Your task to perform on an android device: Open the stopwatch Image 0: 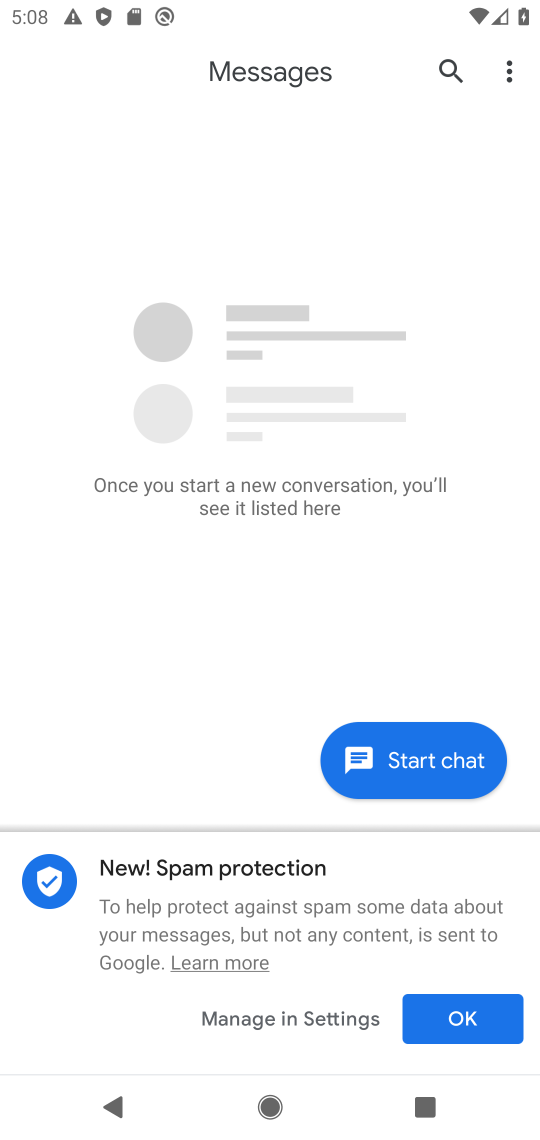
Step 0: press back button
Your task to perform on an android device: Open the stopwatch Image 1: 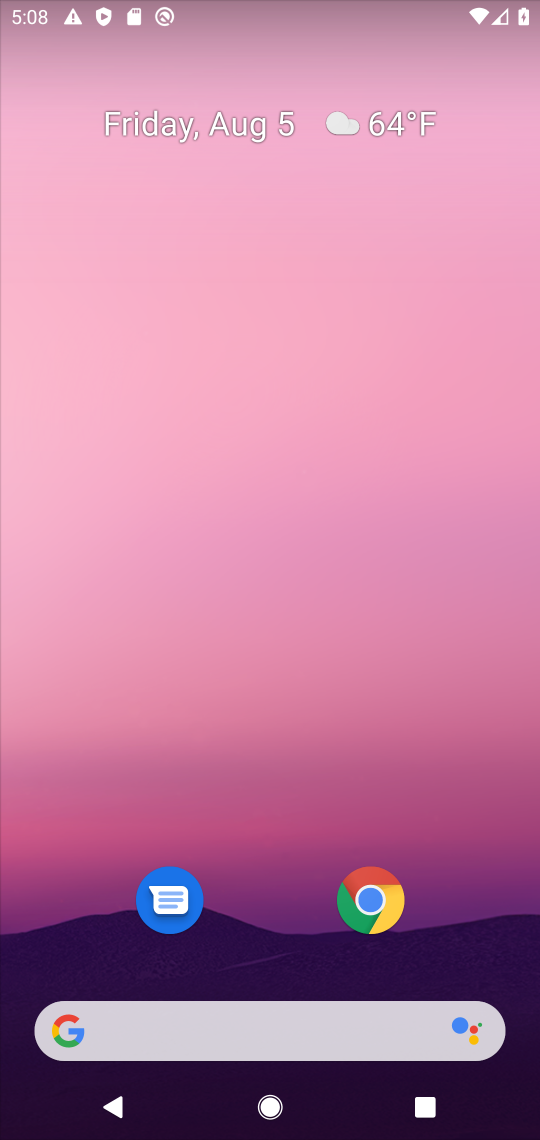
Step 1: drag from (309, 1004) to (357, 96)
Your task to perform on an android device: Open the stopwatch Image 2: 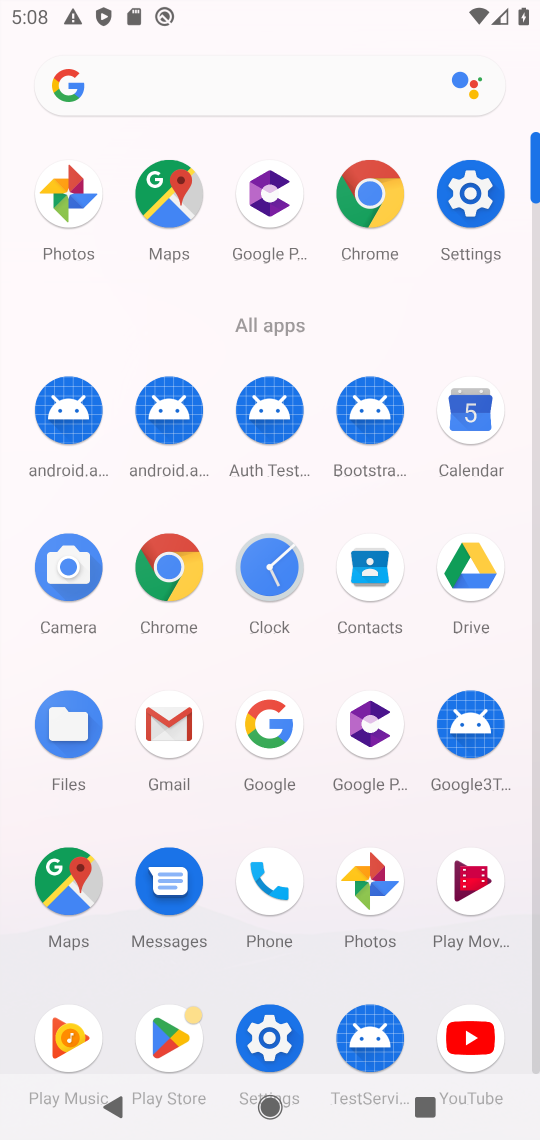
Step 2: click (269, 556)
Your task to perform on an android device: Open the stopwatch Image 3: 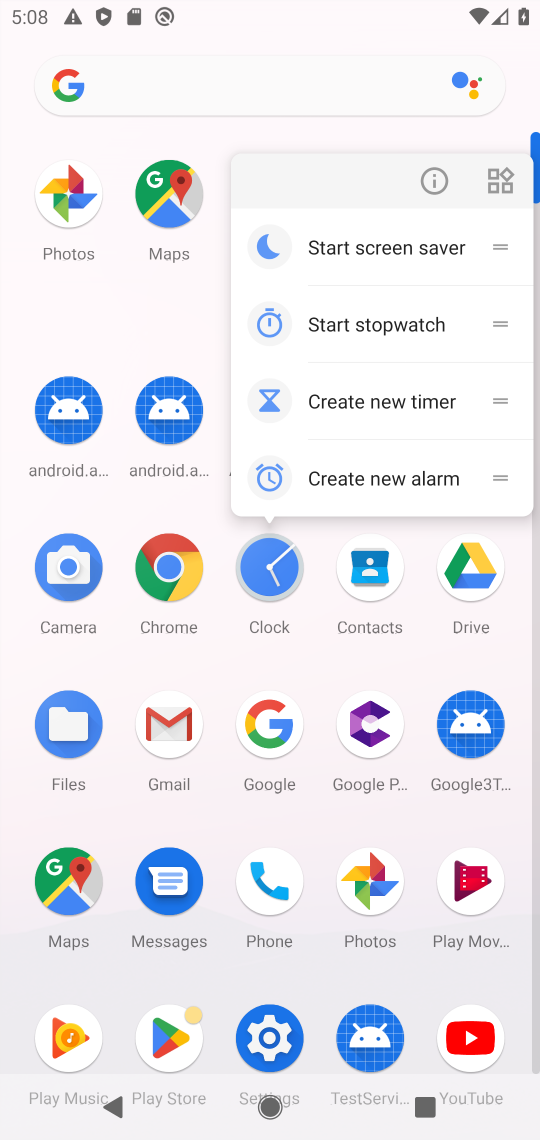
Step 3: click (269, 556)
Your task to perform on an android device: Open the stopwatch Image 4: 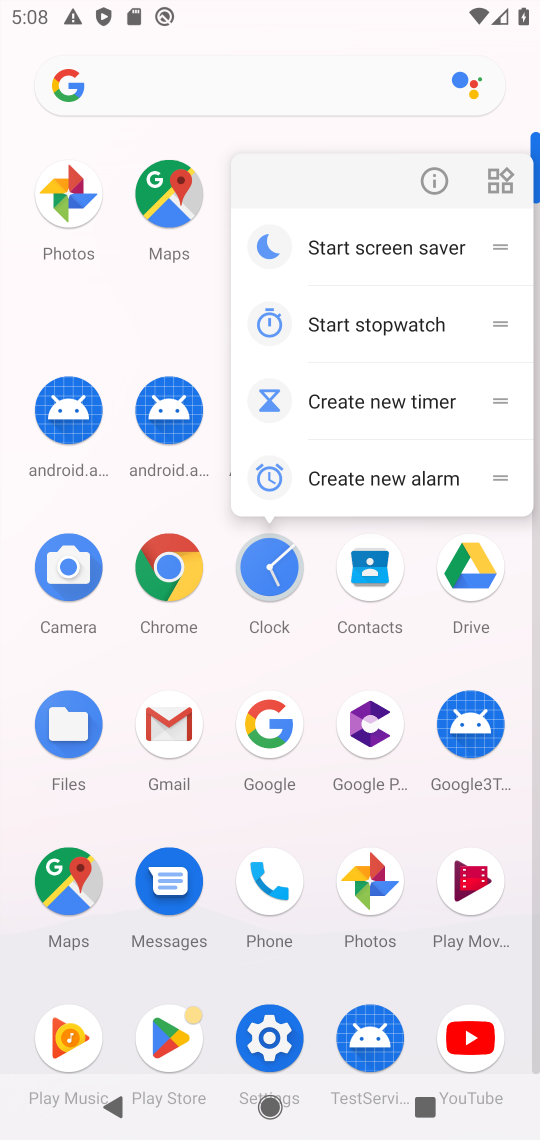
Step 4: click (394, 317)
Your task to perform on an android device: Open the stopwatch Image 5: 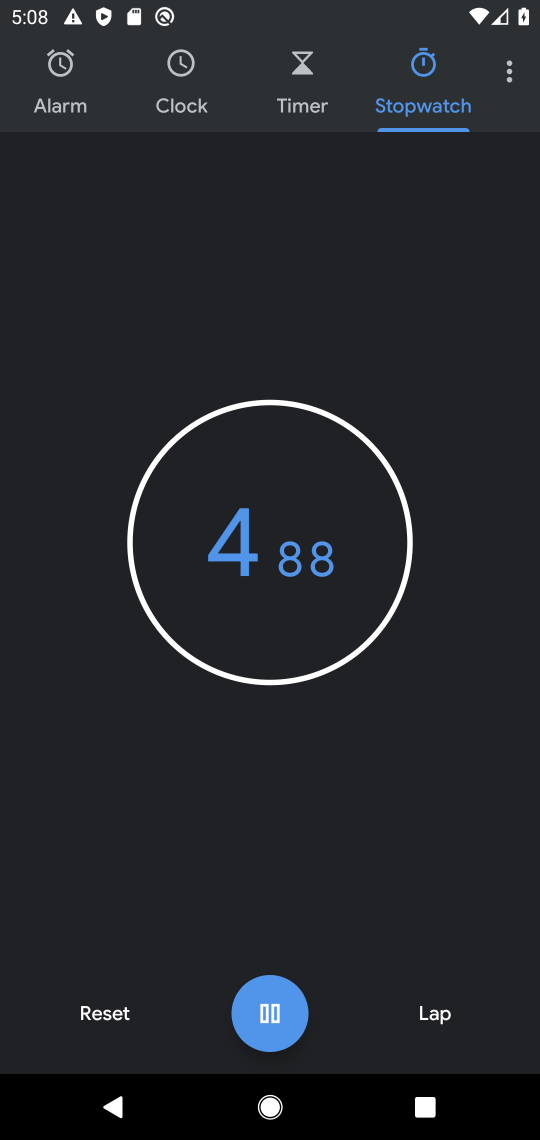
Step 5: task complete